Your task to perform on an android device: turn pop-ups on in chrome Image 0: 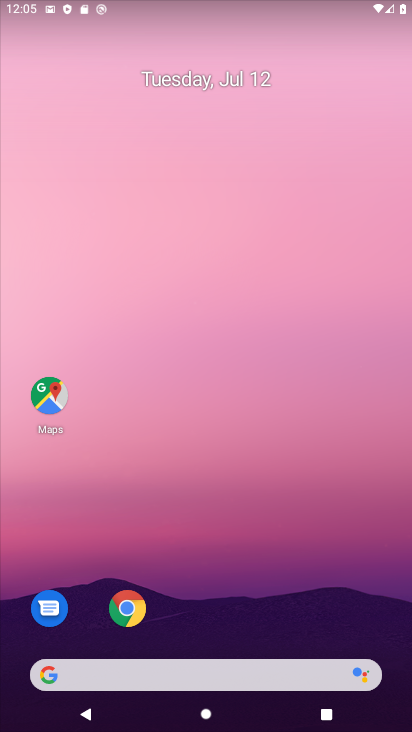
Step 0: click (142, 608)
Your task to perform on an android device: turn pop-ups on in chrome Image 1: 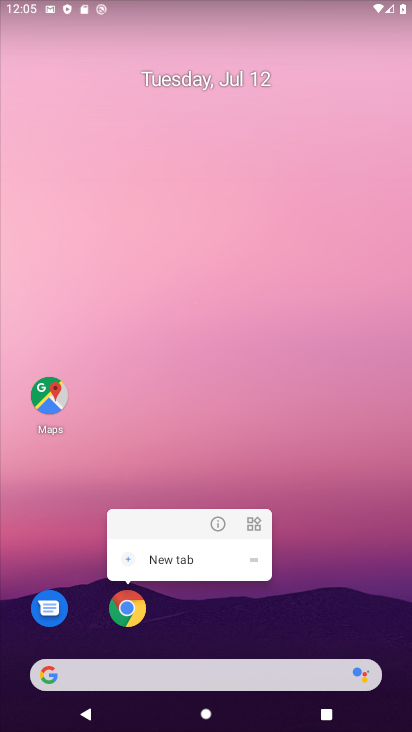
Step 1: click (133, 603)
Your task to perform on an android device: turn pop-ups on in chrome Image 2: 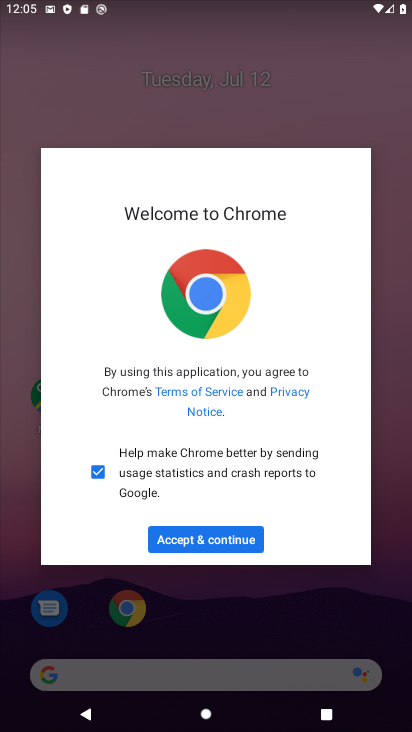
Step 2: click (213, 547)
Your task to perform on an android device: turn pop-ups on in chrome Image 3: 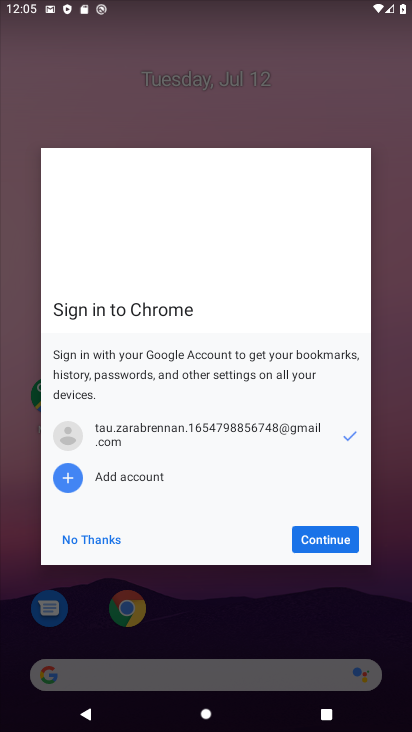
Step 3: click (310, 538)
Your task to perform on an android device: turn pop-ups on in chrome Image 4: 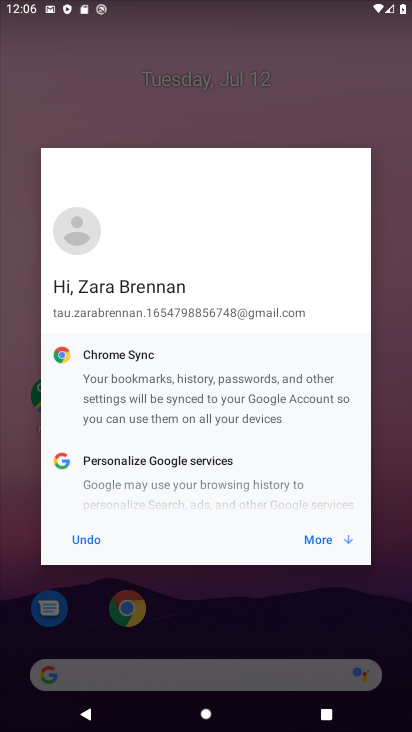
Step 4: click (310, 543)
Your task to perform on an android device: turn pop-ups on in chrome Image 5: 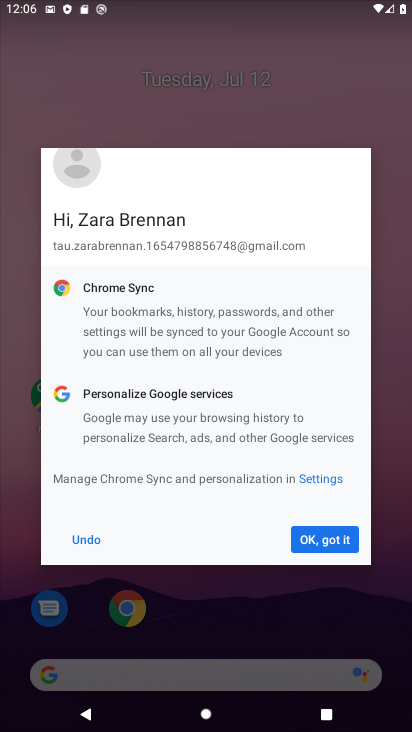
Step 5: click (329, 542)
Your task to perform on an android device: turn pop-ups on in chrome Image 6: 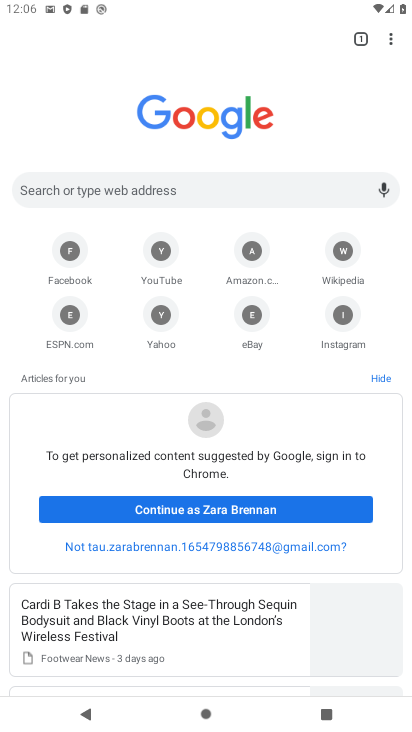
Step 6: click (387, 31)
Your task to perform on an android device: turn pop-ups on in chrome Image 7: 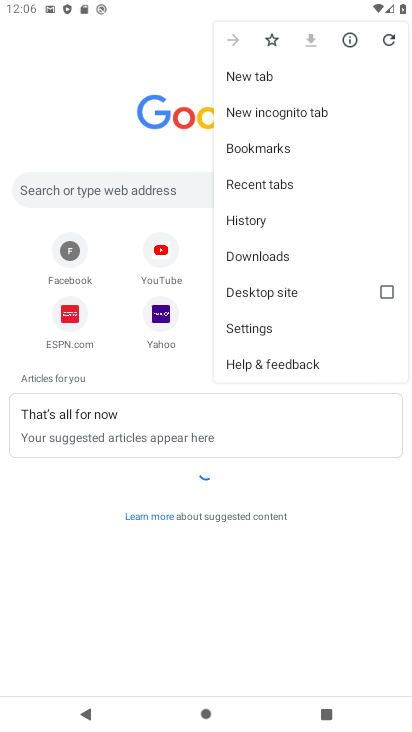
Step 7: click (250, 319)
Your task to perform on an android device: turn pop-ups on in chrome Image 8: 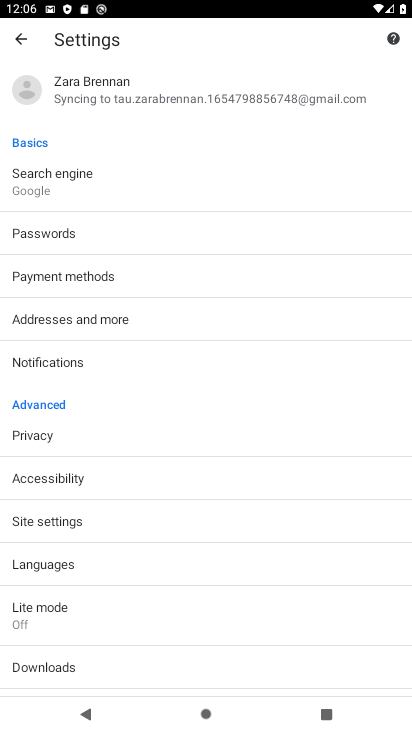
Step 8: click (34, 519)
Your task to perform on an android device: turn pop-ups on in chrome Image 9: 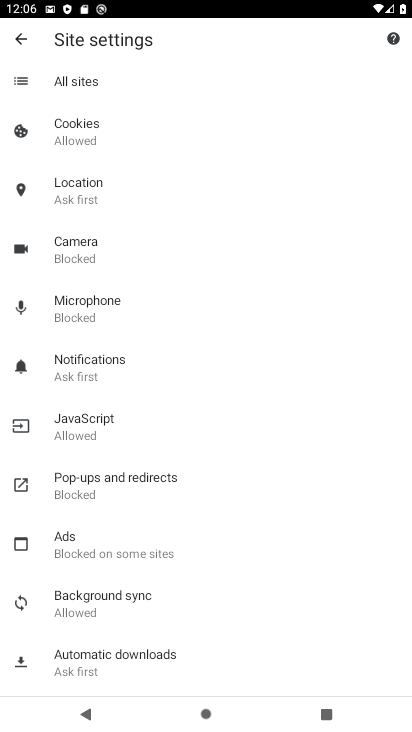
Step 9: click (60, 493)
Your task to perform on an android device: turn pop-ups on in chrome Image 10: 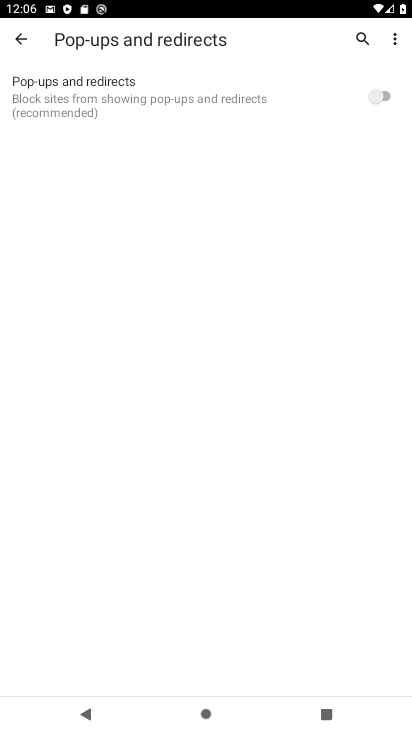
Step 10: click (370, 104)
Your task to perform on an android device: turn pop-ups on in chrome Image 11: 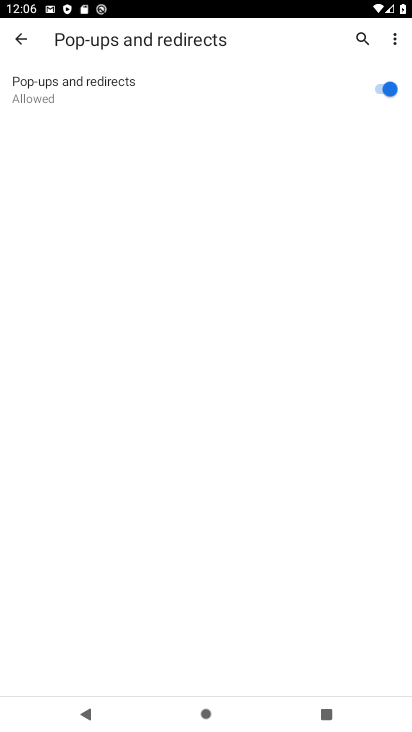
Step 11: task complete